Your task to perform on an android device: turn on location history Image 0: 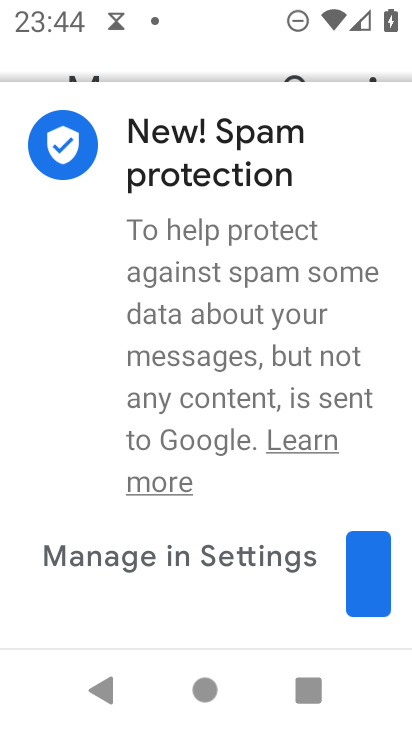
Step 0: press home button
Your task to perform on an android device: turn on location history Image 1: 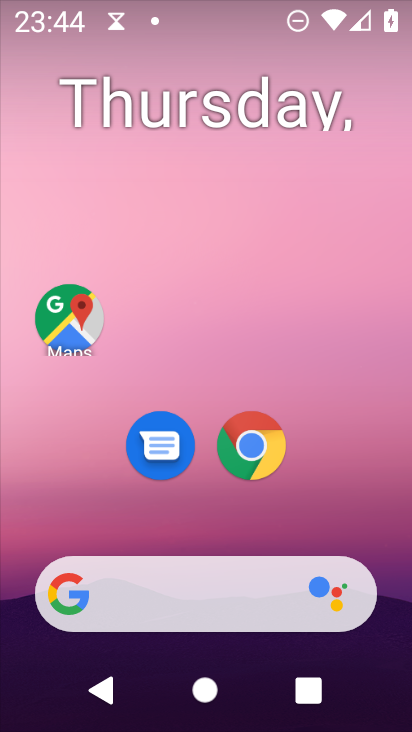
Step 1: drag from (237, 715) to (238, 60)
Your task to perform on an android device: turn on location history Image 2: 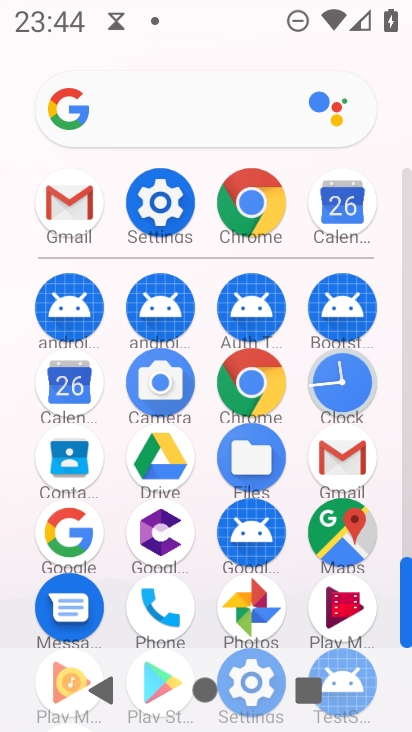
Step 2: click (165, 203)
Your task to perform on an android device: turn on location history Image 3: 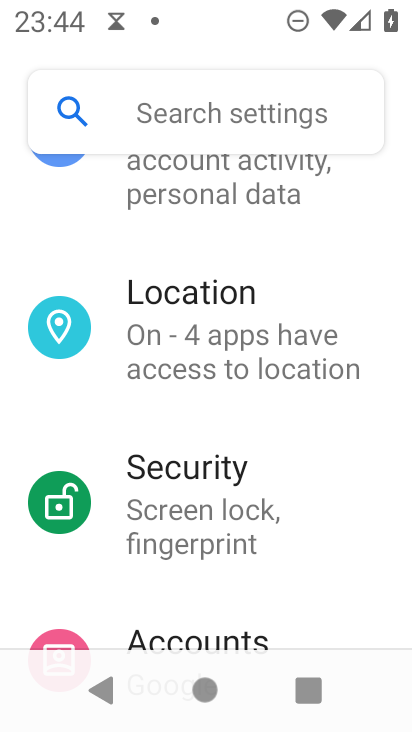
Step 3: click (189, 320)
Your task to perform on an android device: turn on location history Image 4: 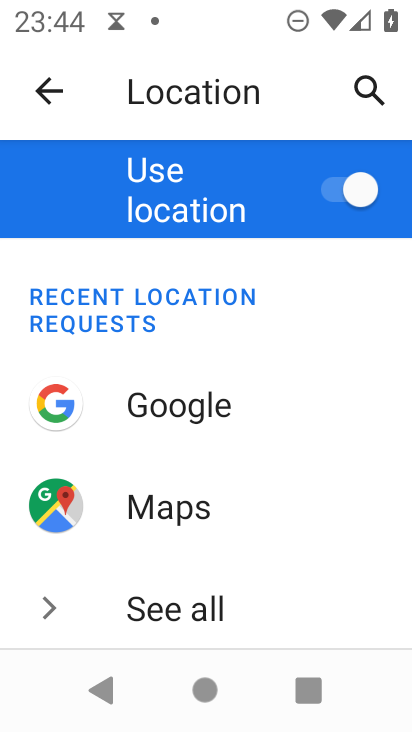
Step 4: drag from (232, 630) to (233, 236)
Your task to perform on an android device: turn on location history Image 5: 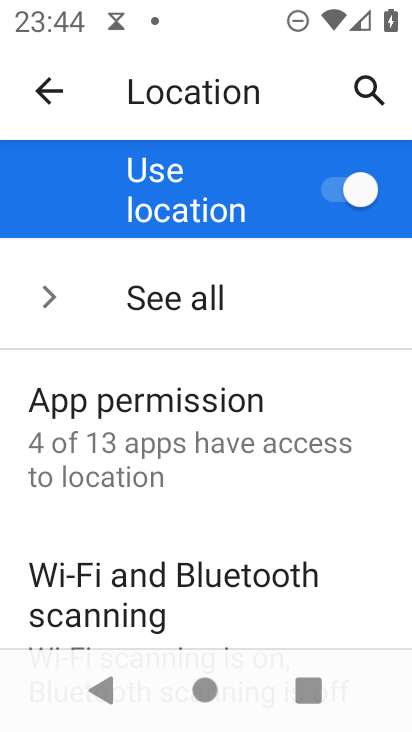
Step 5: drag from (223, 636) to (220, 234)
Your task to perform on an android device: turn on location history Image 6: 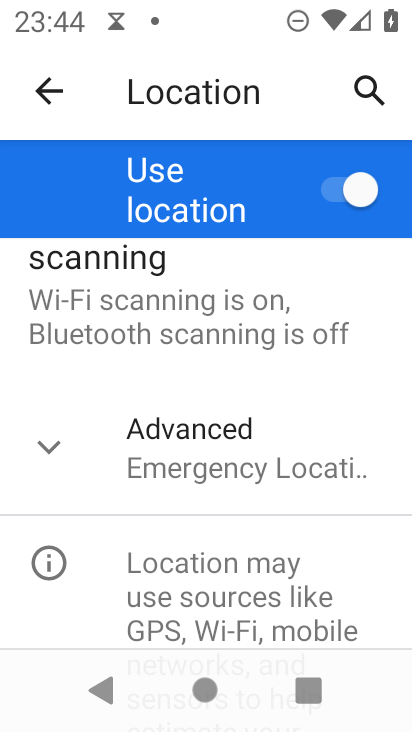
Step 6: click (208, 464)
Your task to perform on an android device: turn on location history Image 7: 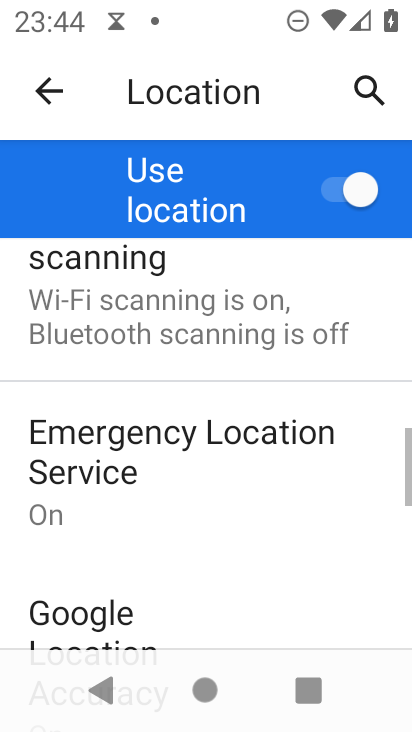
Step 7: drag from (253, 620) to (244, 303)
Your task to perform on an android device: turn on location history Image 8: 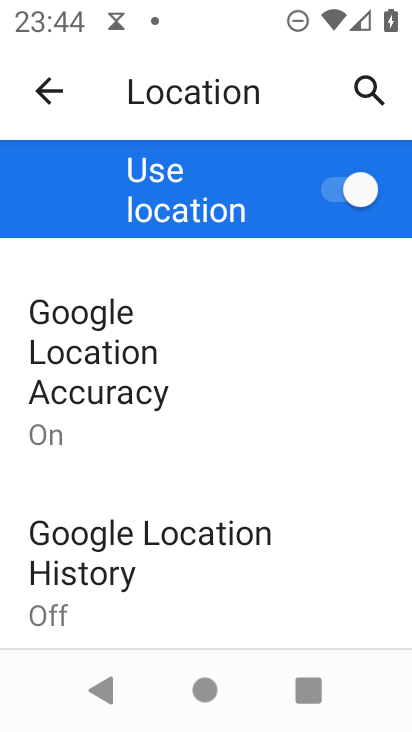
Step 8: click (121, 556)
Your task to perform on an android device: turn on location history Image 9: 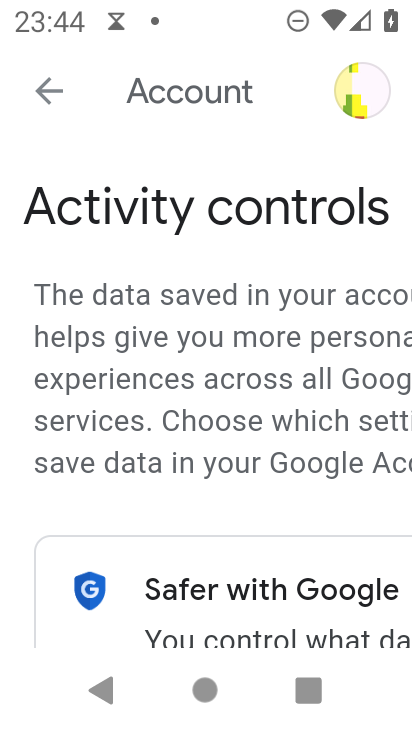
Step 9: task complete